Your task to perform on an android device: open app "Airtel Thanks" (install if not already installed) Image 0: 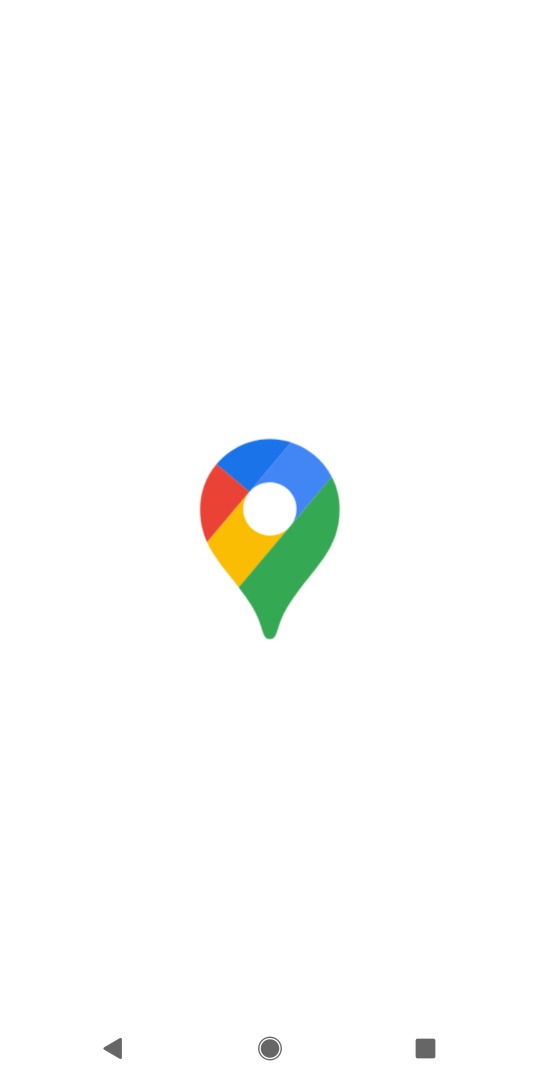
Step 0: press home button
Your task to perform on an android device: open app "Airtel Thanks" (install if not already installed) Image 1: 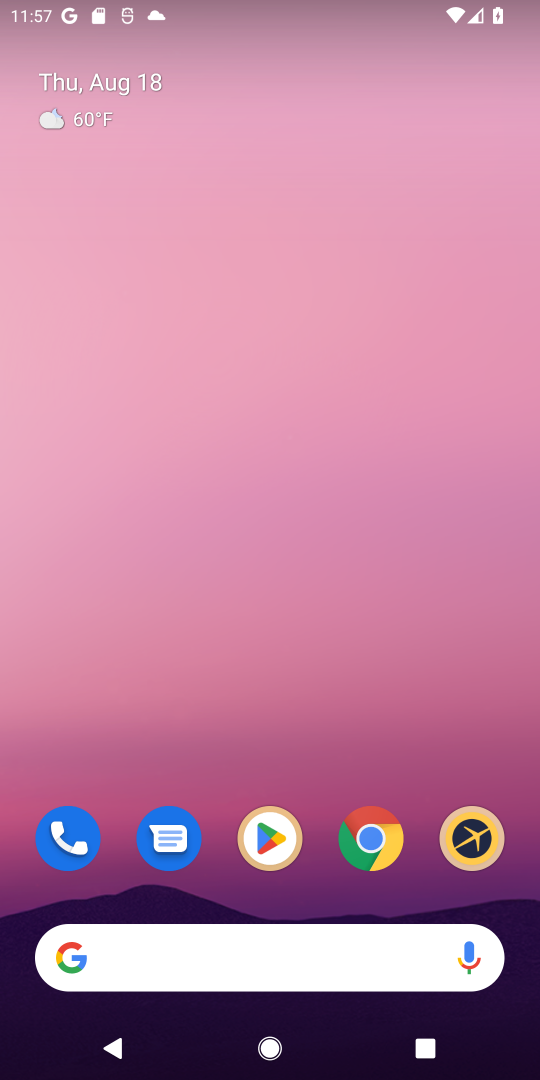
Step 1: click (247, 829)
Your task to perform on an android device: open app "Airtel Thanks" (install if not already installed) Image 2: 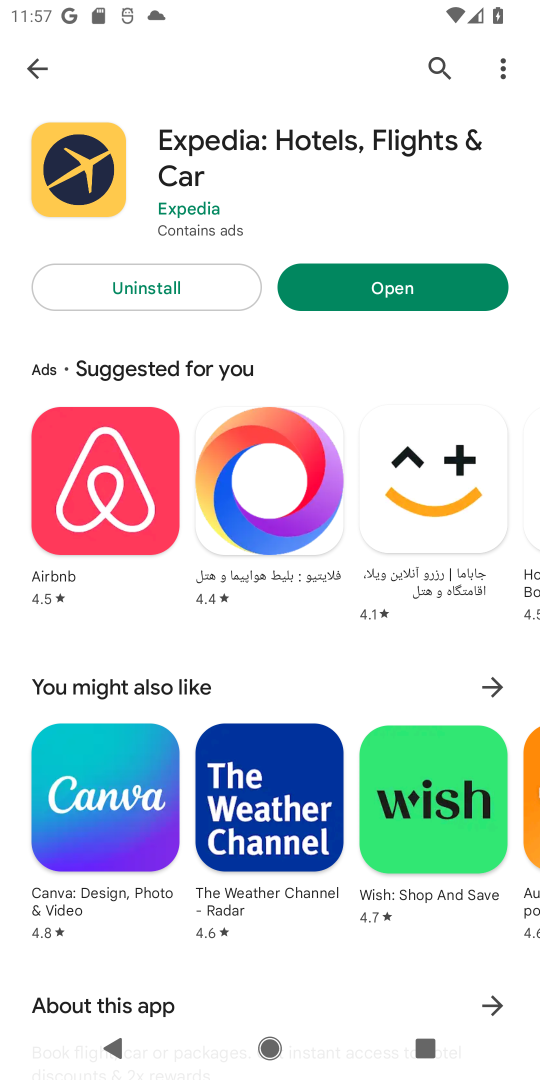
Step 2: click (430, 64)
Your task to perform on an android device: open app "Airtel Thanks" (install if not already installed) Image 3: 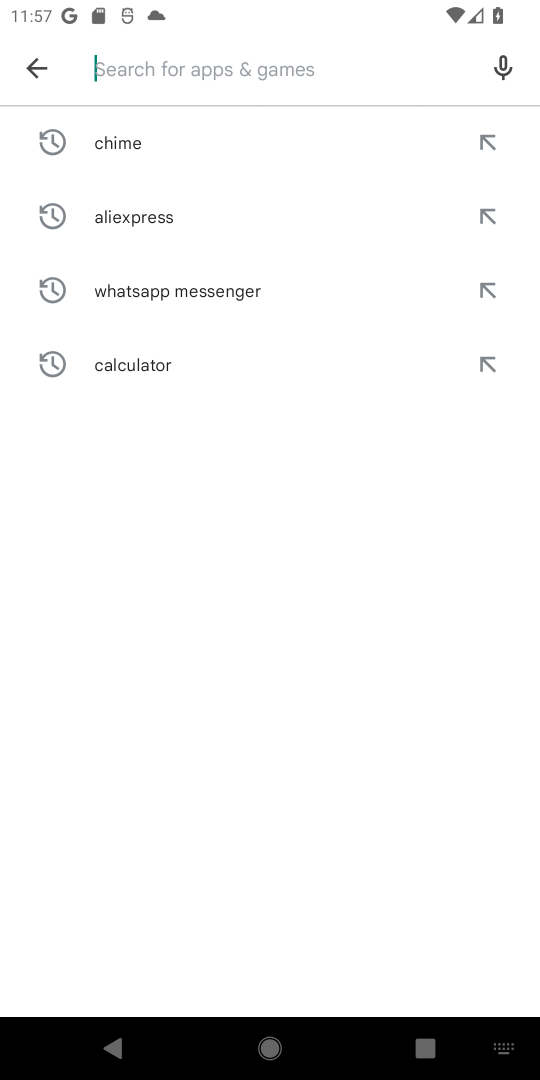
Step 3: type "Airtel Thanks"
Your task to perform on an android device: open app "Airtel Thanks" (install if not already installed) Image 4: 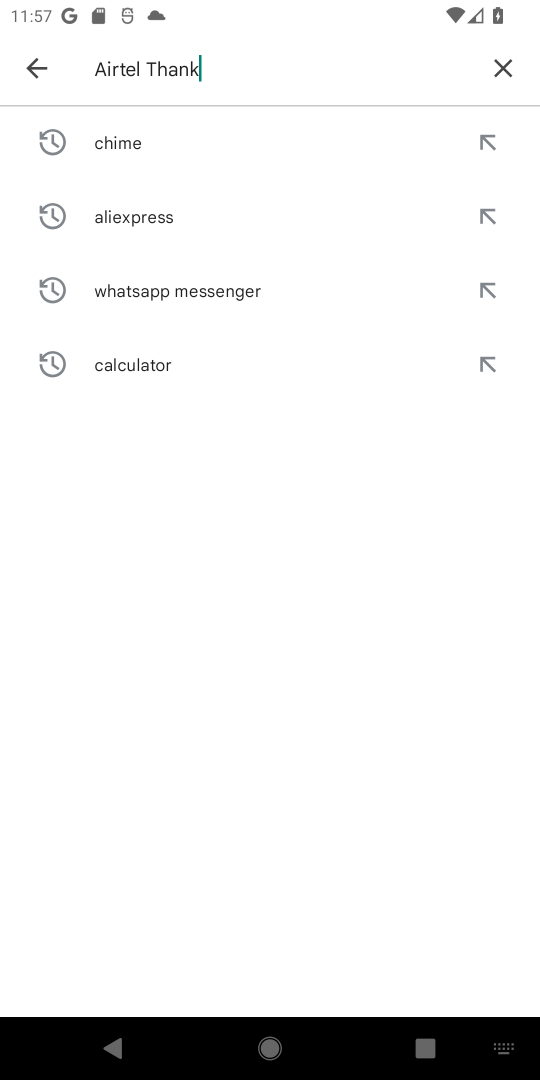
Step 4: type ""
Your task to perform on an android device: open app "Airtel Thanks" (install if not already installed) Image 5: 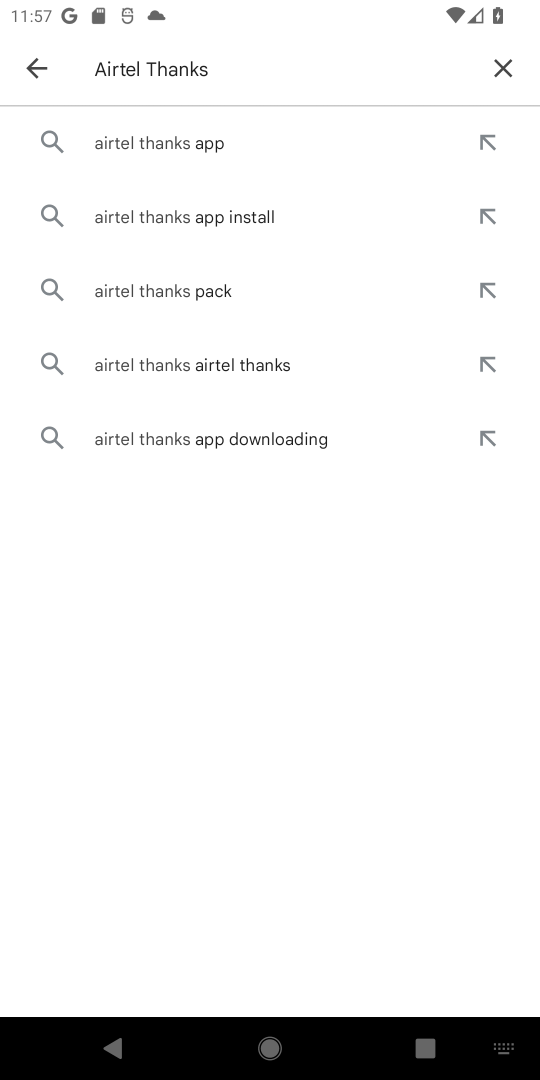
Step 5: click (230, 128)
Your task to perform on an android device: open app "Airtel Thanks" (install if not already installed) Image 6: 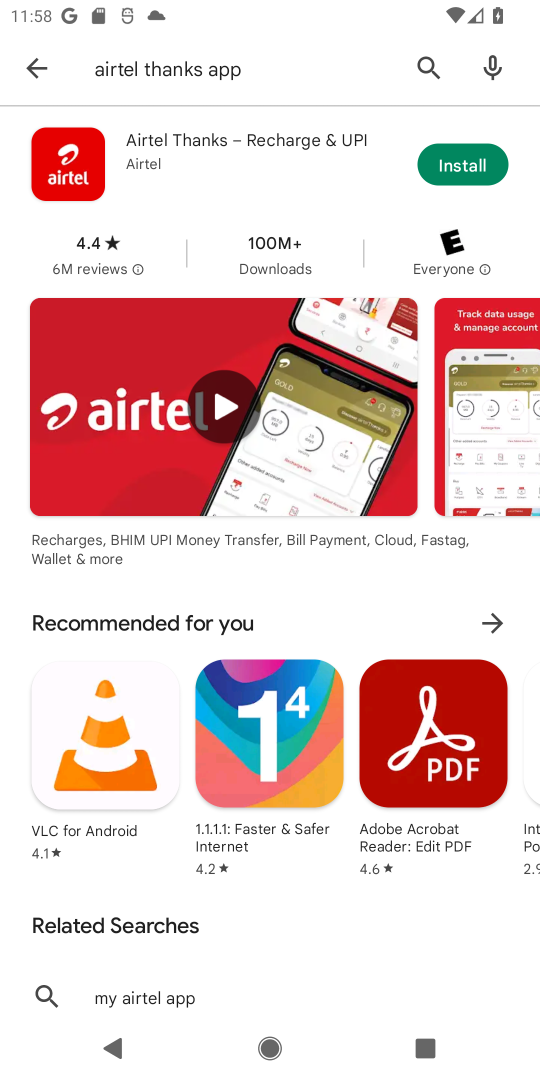
Step 6: click (465, 168)
Your task to perform on an android device: open app "Airtel Thanks" (install if not already installed) Image 7: 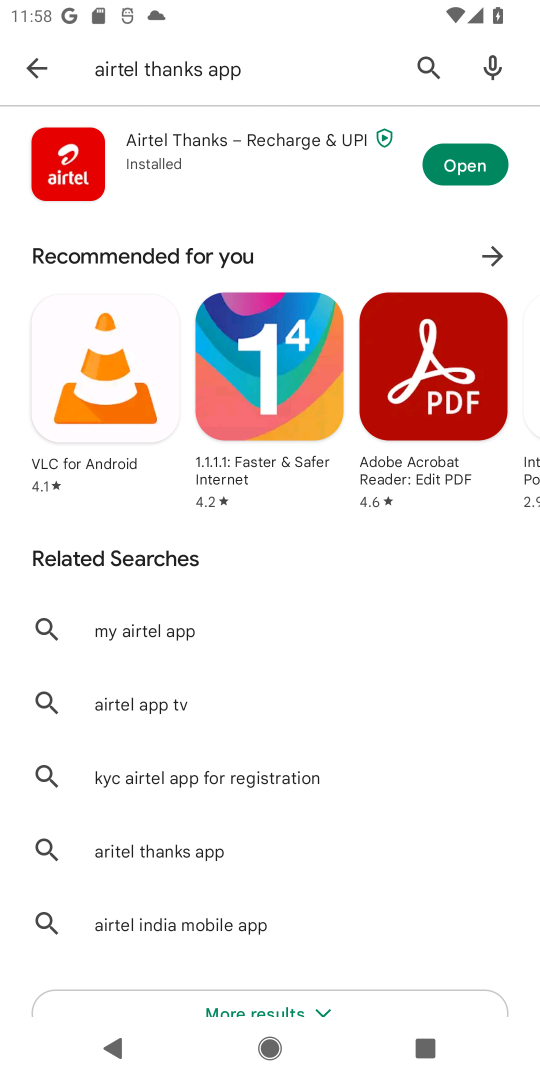
Step 7: click (465, 168)
Your task to perform on an android device: open app "Airtel Thanks" (install if not already installed) Image 8: 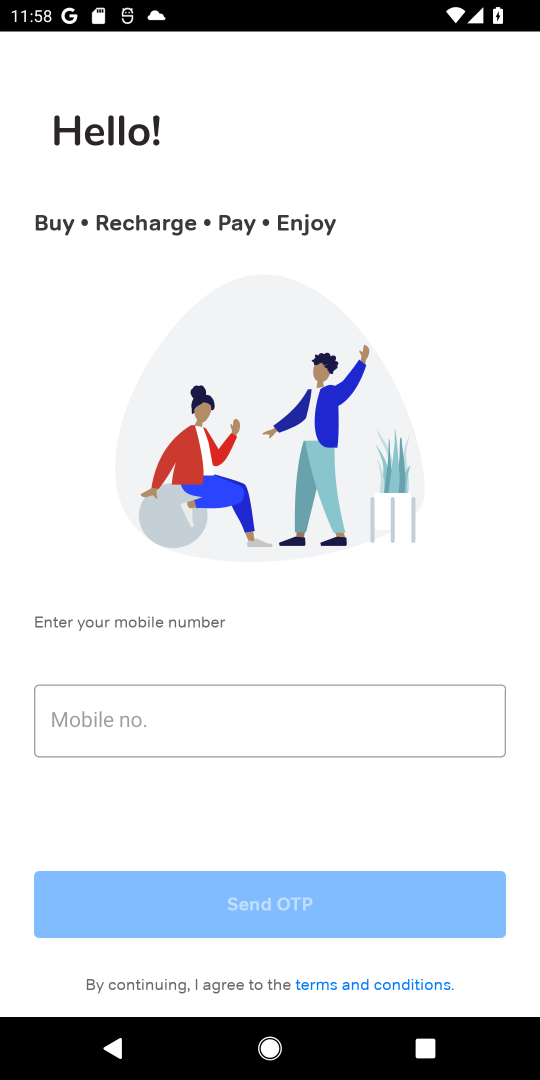
Step 8: task complete